Your task to perform on an android device: open sync settings in chrome Image 0: 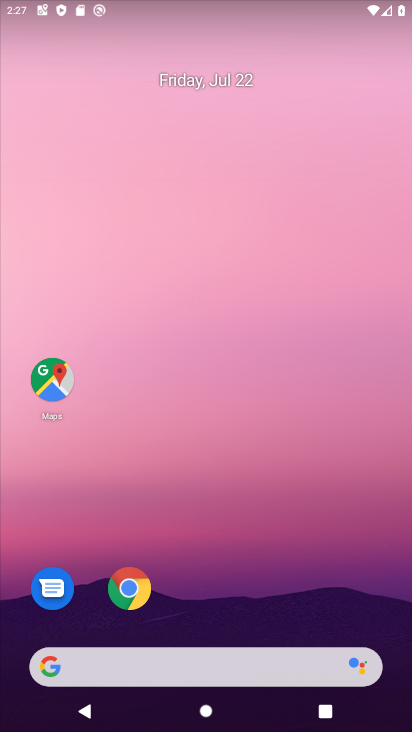
Step 0: click (119, 585)
Your task to perform on an android device: open sync settings in chrome Image 1: 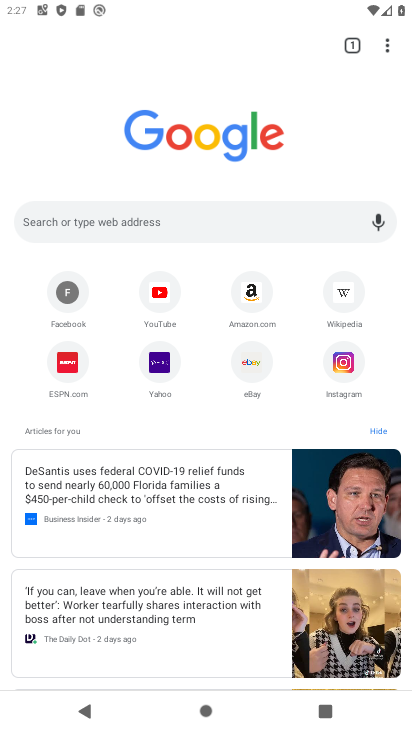
Step 1: click (383, 36)
Your task to perform on an android device: open sync settings in chrome Image 2: 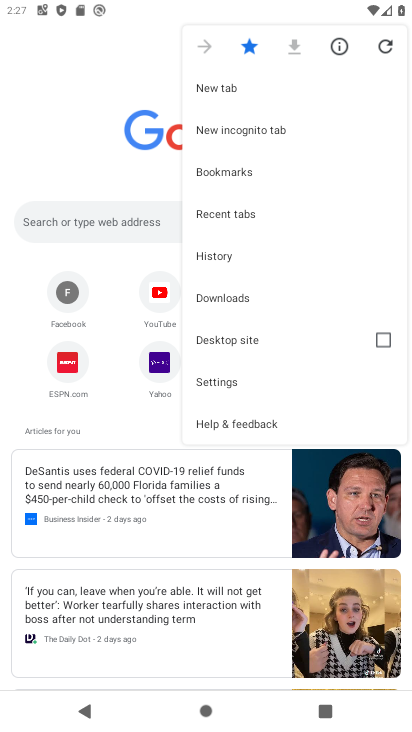
Step 2: click (243, 377)
Your task to perform on an android device: open sync settings in chrome Image 3: 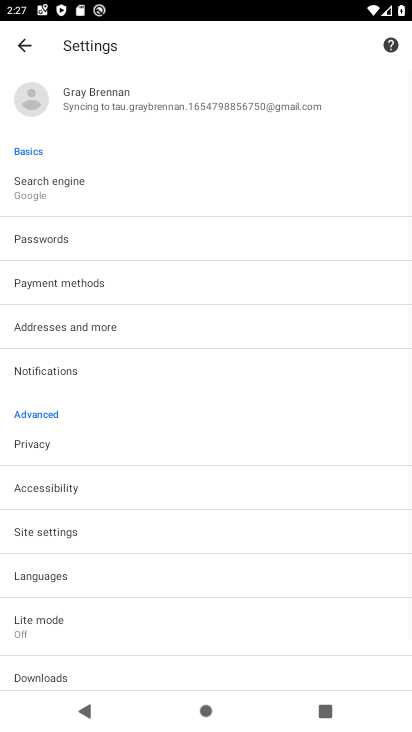
Step 3: click (118, 96)
Your task to perform on an android device: open sync settings in chrome Image 4: 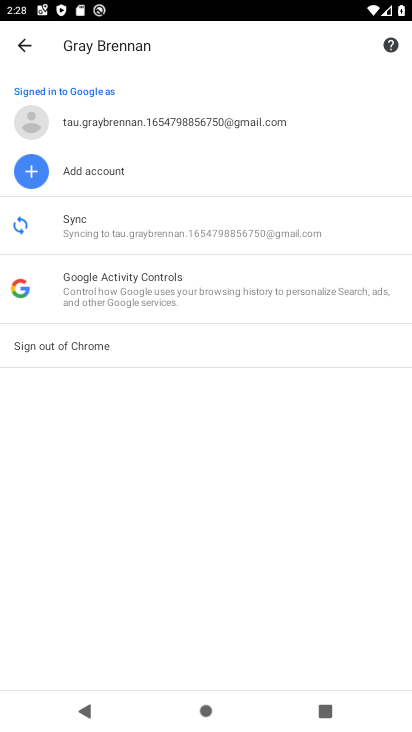
Step 4: click (100, 219)
Your task to perform on an android device: open sync settings in chrome Image 5: 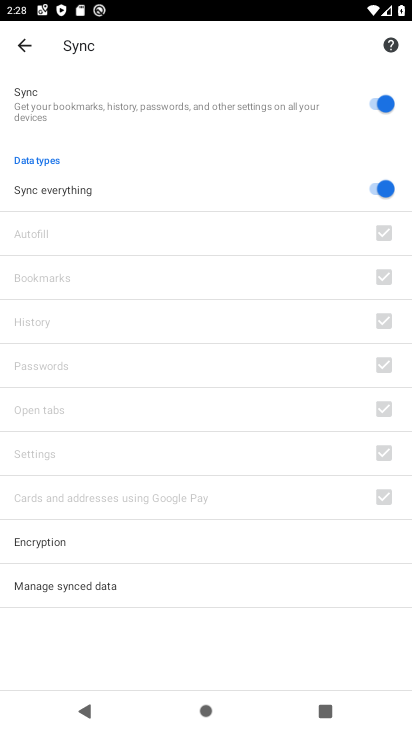
Step 5: task complete